Your task to perform on an android device: turn on priority inbox in the gmail app Image 0: 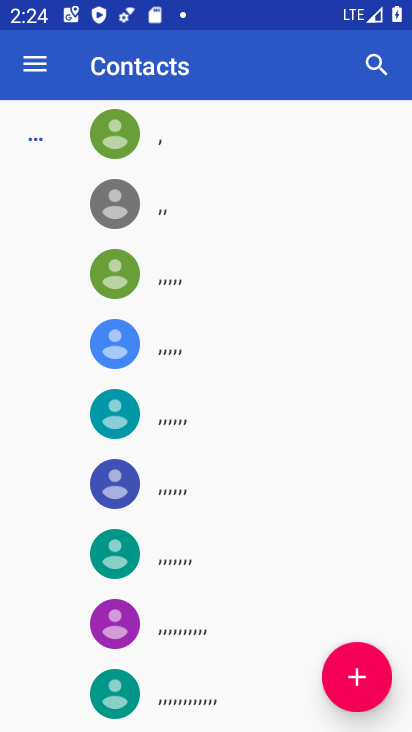
Step 0: press back button
Your task to perform on an android device: turn on priority inbox in the gmail app Image 1: 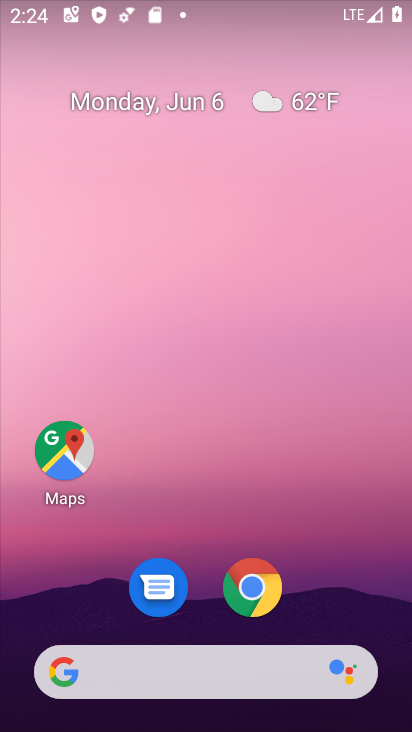
Step 1: drag from (293, 487) to (237, 6)
Your task to perform on an android device: turn on priority inbox in the gmail app Image 2: 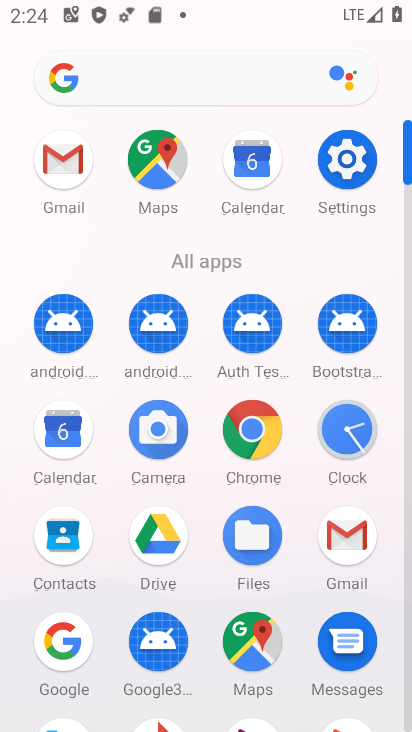
Step 2: drag from (13, 576) to (14, 259)
Your task to perform on an android device: turn on priority inbox in the gmail app Image 3: 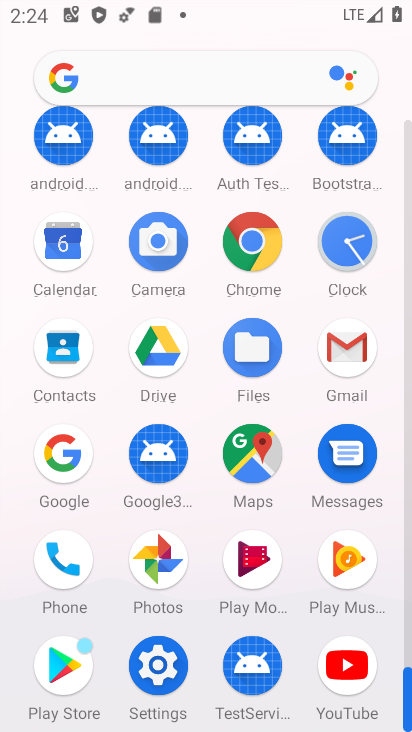
Step 3: click (349, 344)
Your task to perform on an android device: turn on priority inbox in the gmail app Image 4: 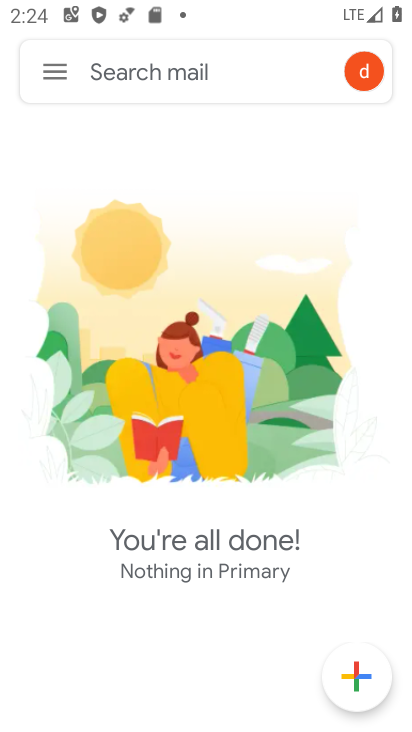
Step 4: click (41, 73)
Your task to perform on an android device: turn on priority inbox in the gmail app Image 5: 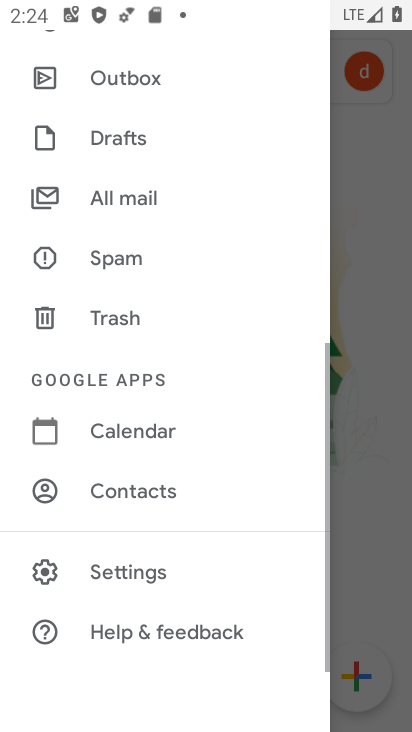
Step 5: click (142, 573)
Your task to perform on an android device: turn on priority inbox in the gmail app Image 6: 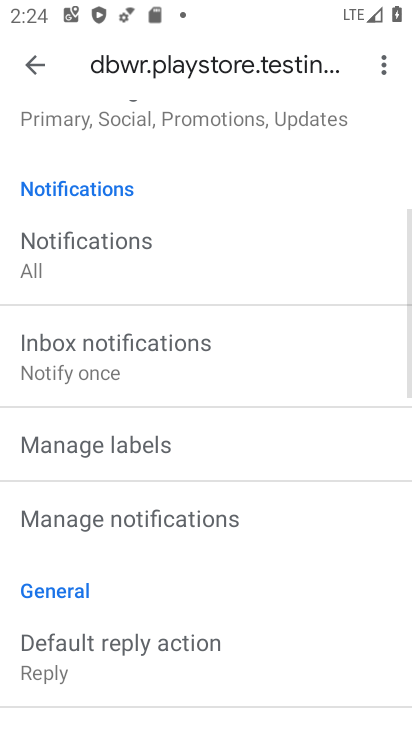
Step 6: drag from (255, 570) to (285, 140)
Your task to perform on an android device: turn on priority inbox in the gmail app Image 7: 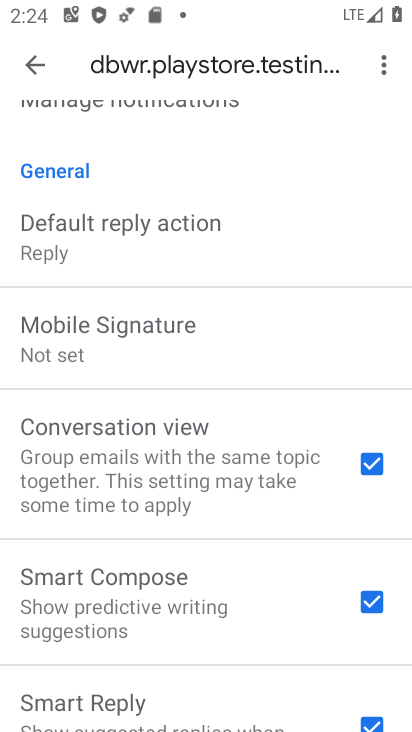
Step 7: drag from (242, 641) to (262, 221)
Your task to perform on an android device: turn on priority inbox in the gmail app Image 8: 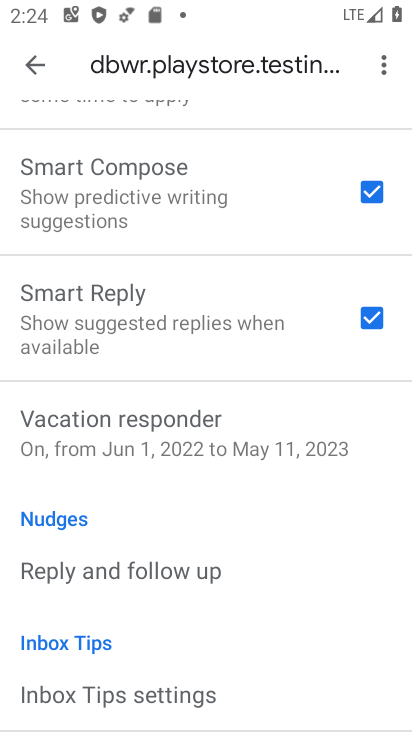
Step 8: drag from (241, 606) to (235, 203)
Your task to perform on an android device: turn on priority inbox in the gmail app Image 9: 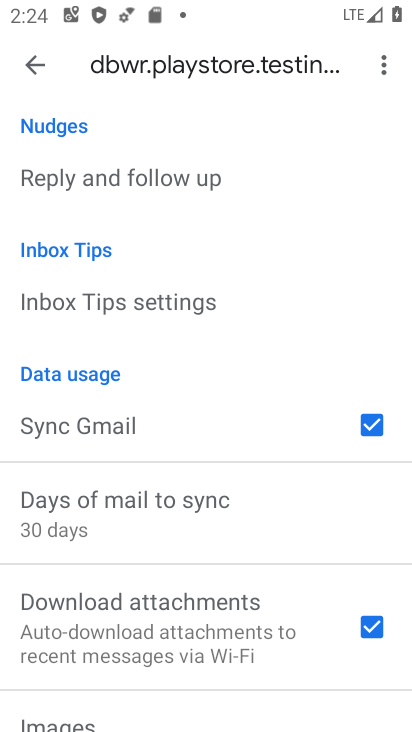
Step 9: drag from (227, 185) to (232, 562)
Your task to perform on an android device: turn on priority inbox in the gmail app Image 10: 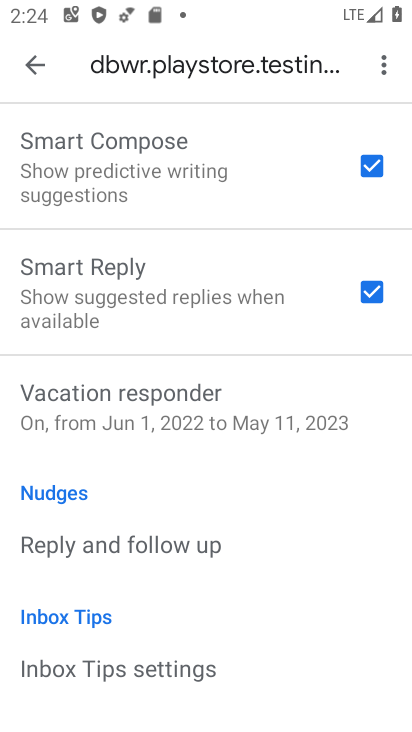
Step 10: drag from (213, 183) to (207, 622)
Your task to perform on an android device: turn on priority inbox in the gmail app Image 11: 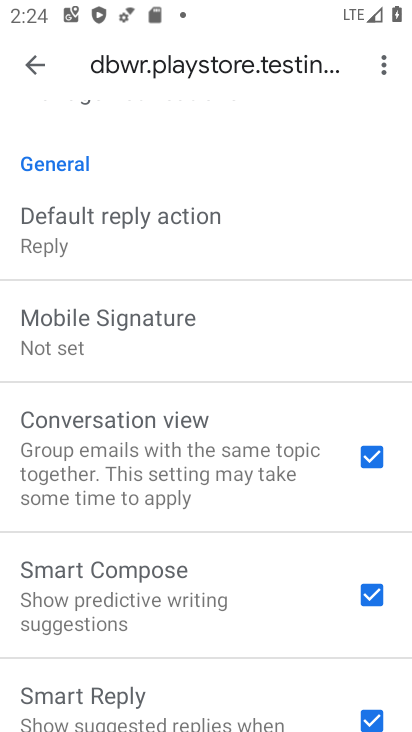
Step 11: drag from (224, 232) to (229, 595)
Your task to perform on an android device: turn on priority inbox in the gmail app Image 12: 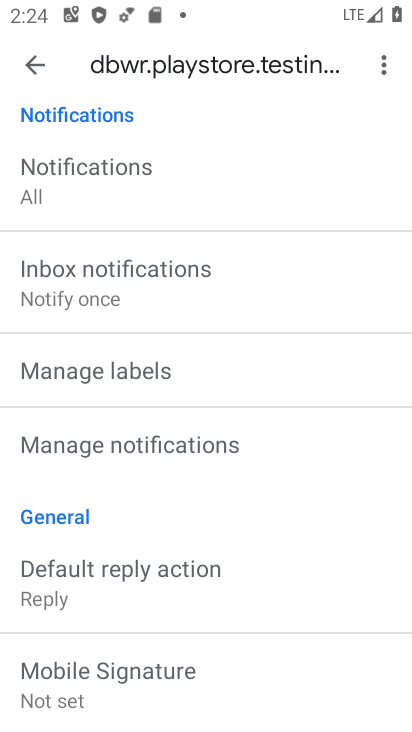
Step 12: drag from (253, 163) to (269, 649)
Your task to perform on an android device: turn on priority inbox in the gmail app Image 13: 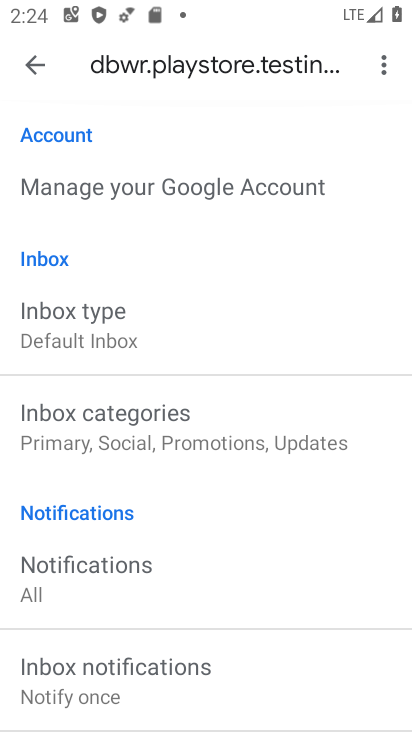
Step 13: drag from (252, 283) to (267, 648)
Your task to perform on an android device: turn on priority inbox in the gmail app Image 14: 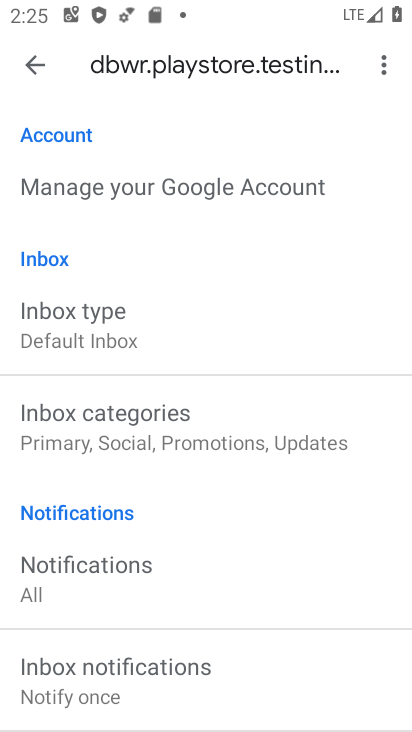
Step 14: click (165, 307)
Your task to perform on an android device: turn on priority inbox in the gmail app Image 15: 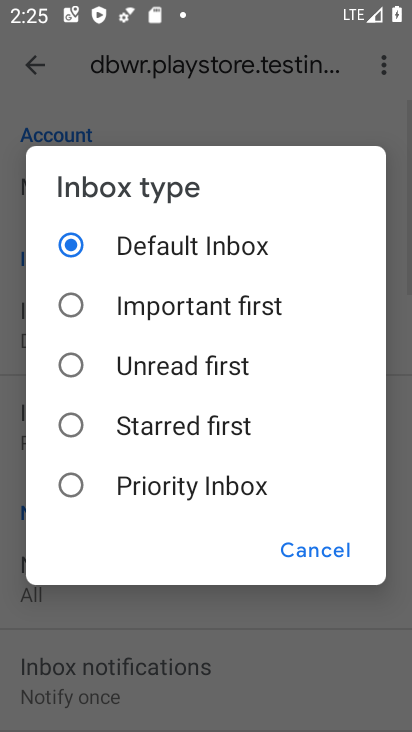
Step 15: click (148, 486)
Your task to perform on an android device: turn on priority inbox in the gmail app Image 16: 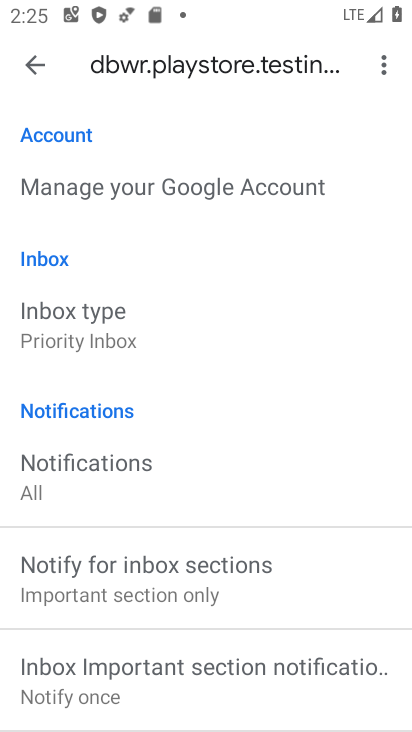
Step 16: task complete